Your task to perform on an android device: Open ESPN.com Image 0: 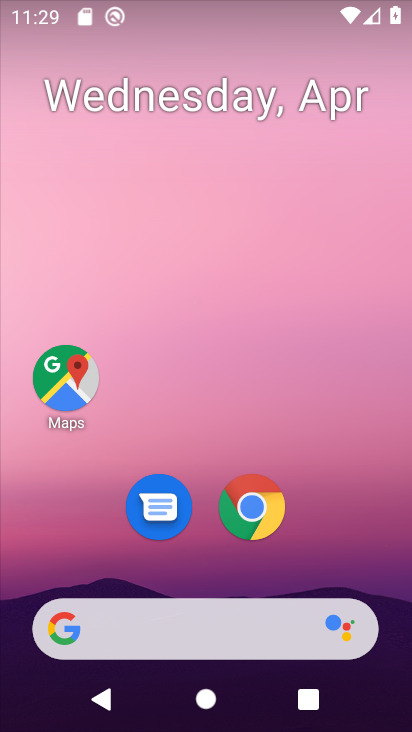
Step 0: drag from (352, 561) to (302, 76)
Your task to perform on an android device: Open ESPN.com Image 1: 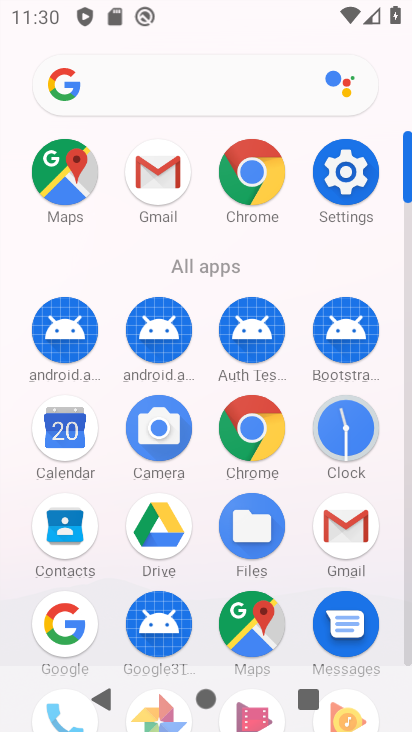
Step 1: click (259, 170)
Your task to perform on an android device: Open ESPN.com Image 2: 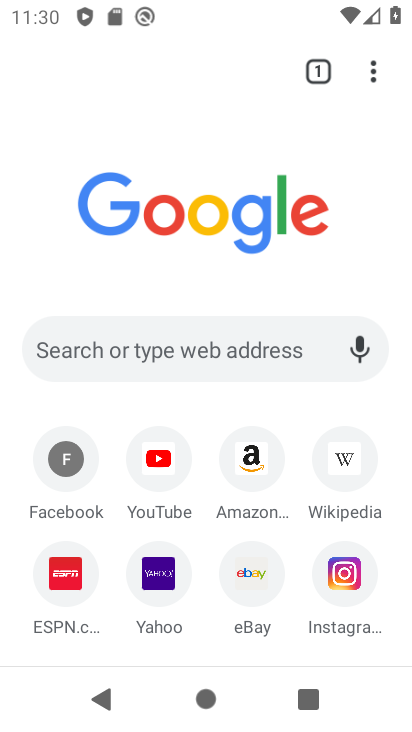
Step 2: click (64, 584)
Your task to perform on an android device: Open ESPN.com Image 3: 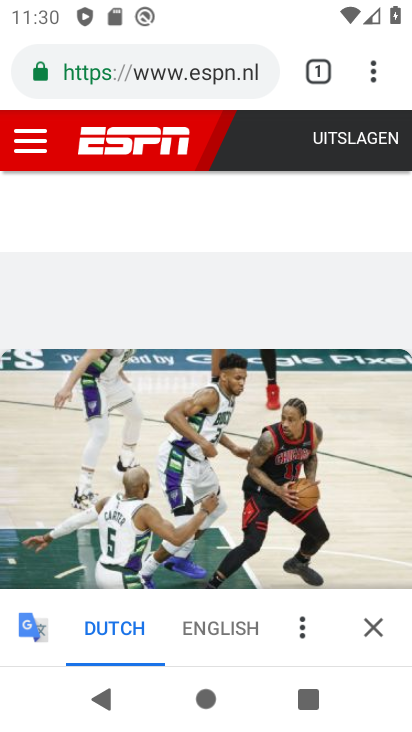
Step 3: task complete